Your task to perform on an android device: allow notifications from all sites in the chrome app Image 0: 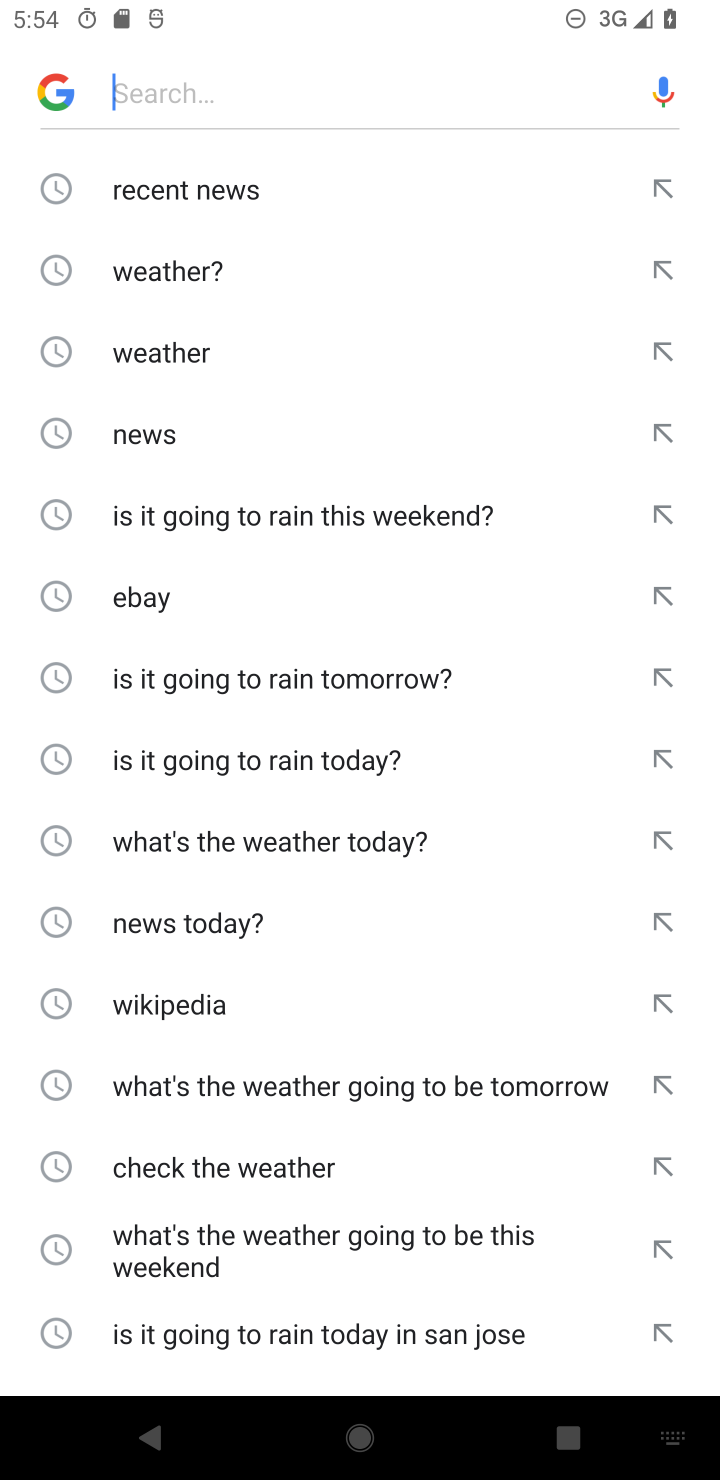
Step 0: press home button
Your task to perform on an android device: allow notifications from all sites in the chrome app Image 1: 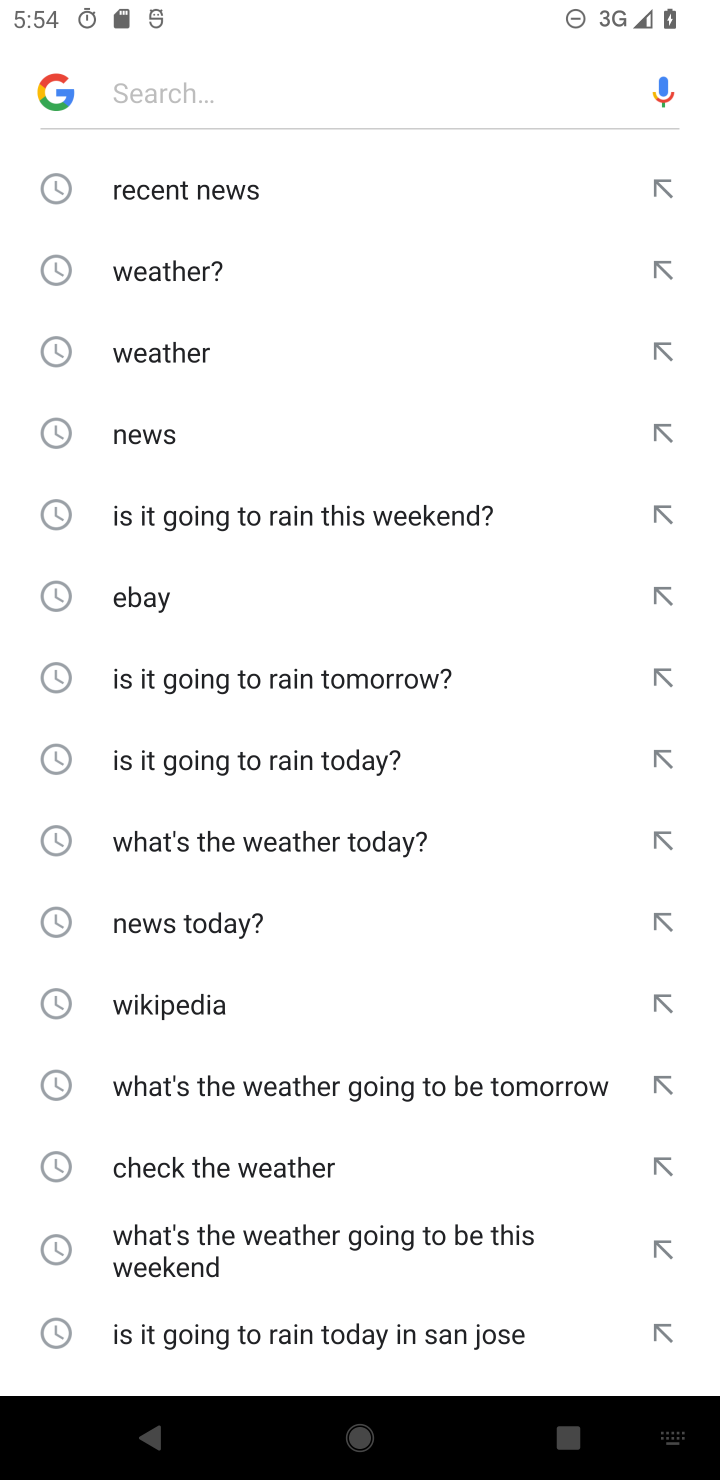
Step 1: press home button
Your task to perform on an android device: allow notifications from all sites in the chrome app Image 2: 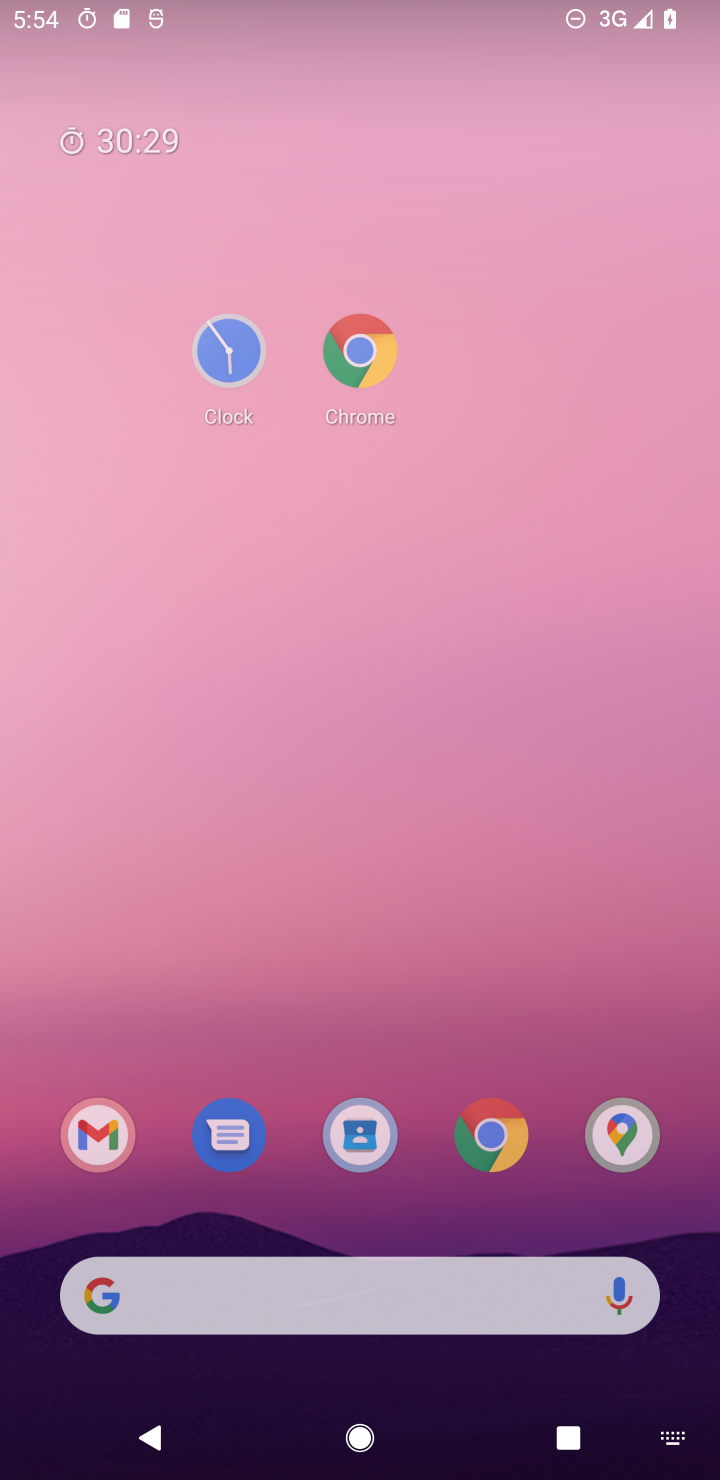
Step 2: press home button
Your task to perform on an android device: allow notifications from all sites in the chrome app Image 3: 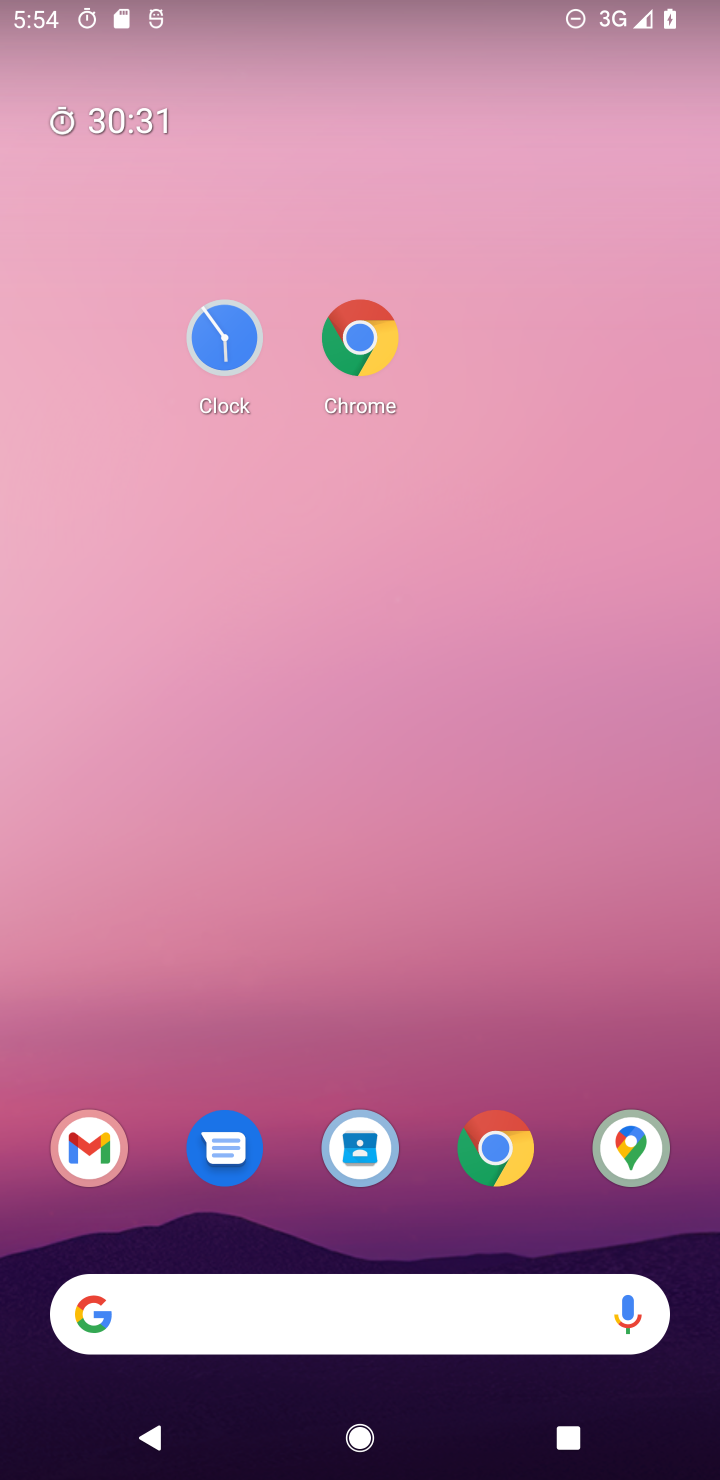
Step 3: press home button
Your task to perform on an android device: allow notifications from all sites in the chrome app Image 4: 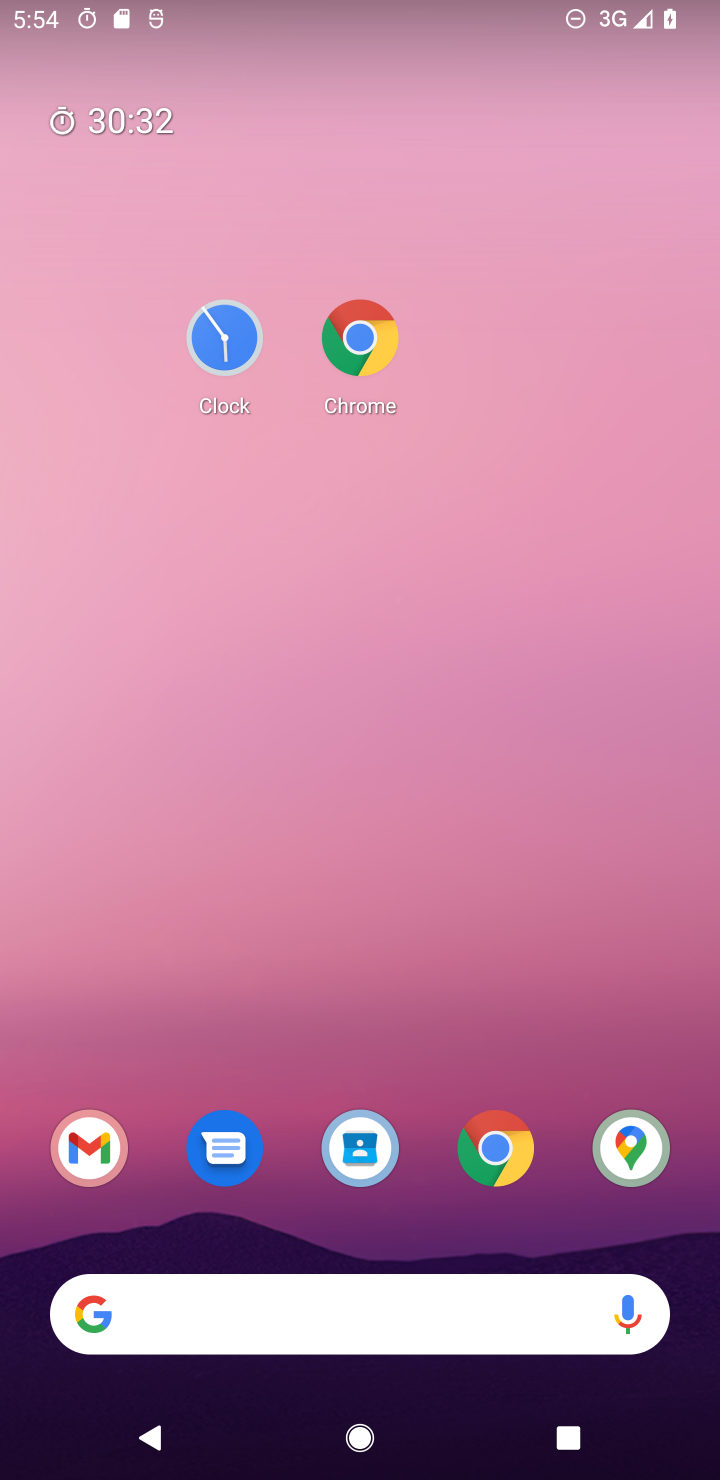
Step 4: drag from (431, 1083) to (443, 380)
Your task to perform on an android device: allow notifications from all sites in the chrome app Image 5: 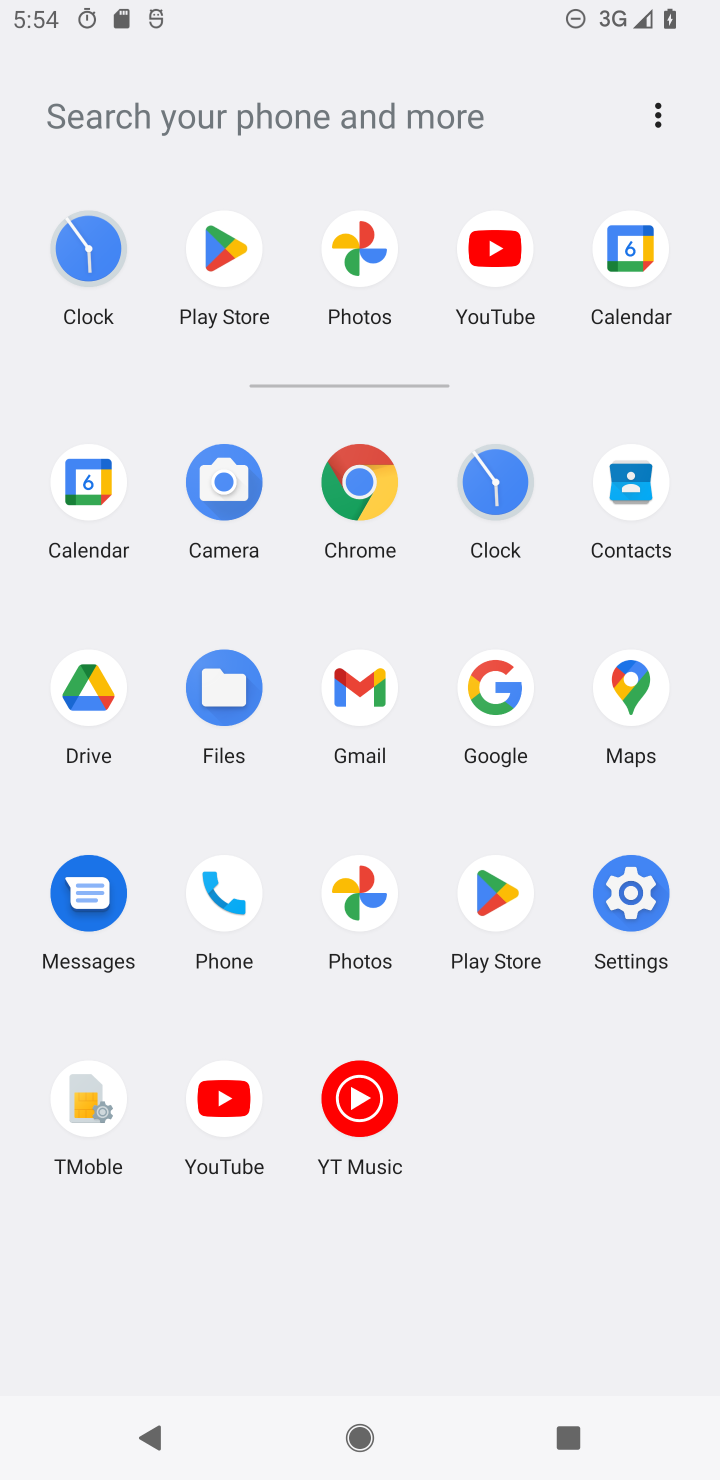
Step 5: click (339, 485)
Your task to perform on an android device: allow notifications from all sites in the chrome app Image 6: 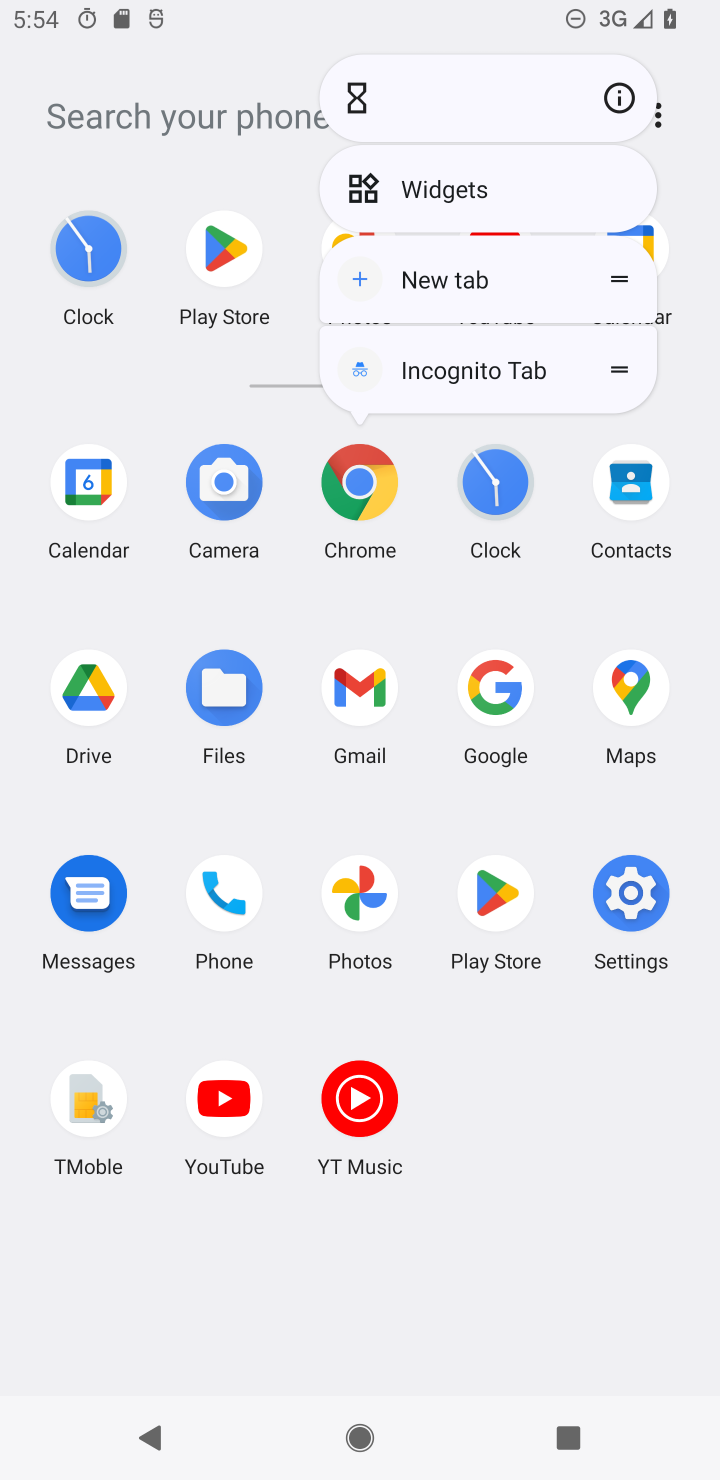
Step 6: click (634, 89)
Your task to perform on an android device: allow notifications from all sites in the chrome app Image 7: 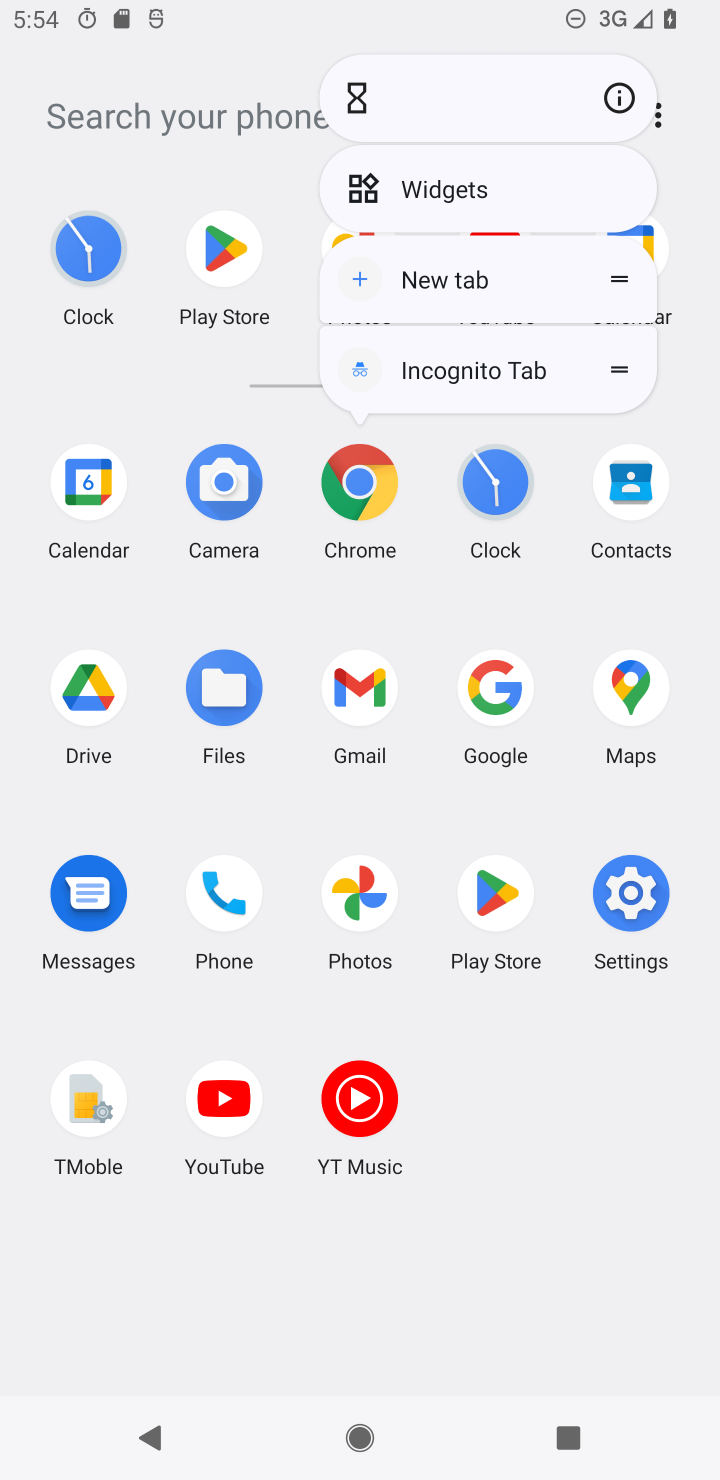
Step 7: click (342, 498)
Your task to perform on an android device: allow notifications from all sites in the chrome app Image 8: 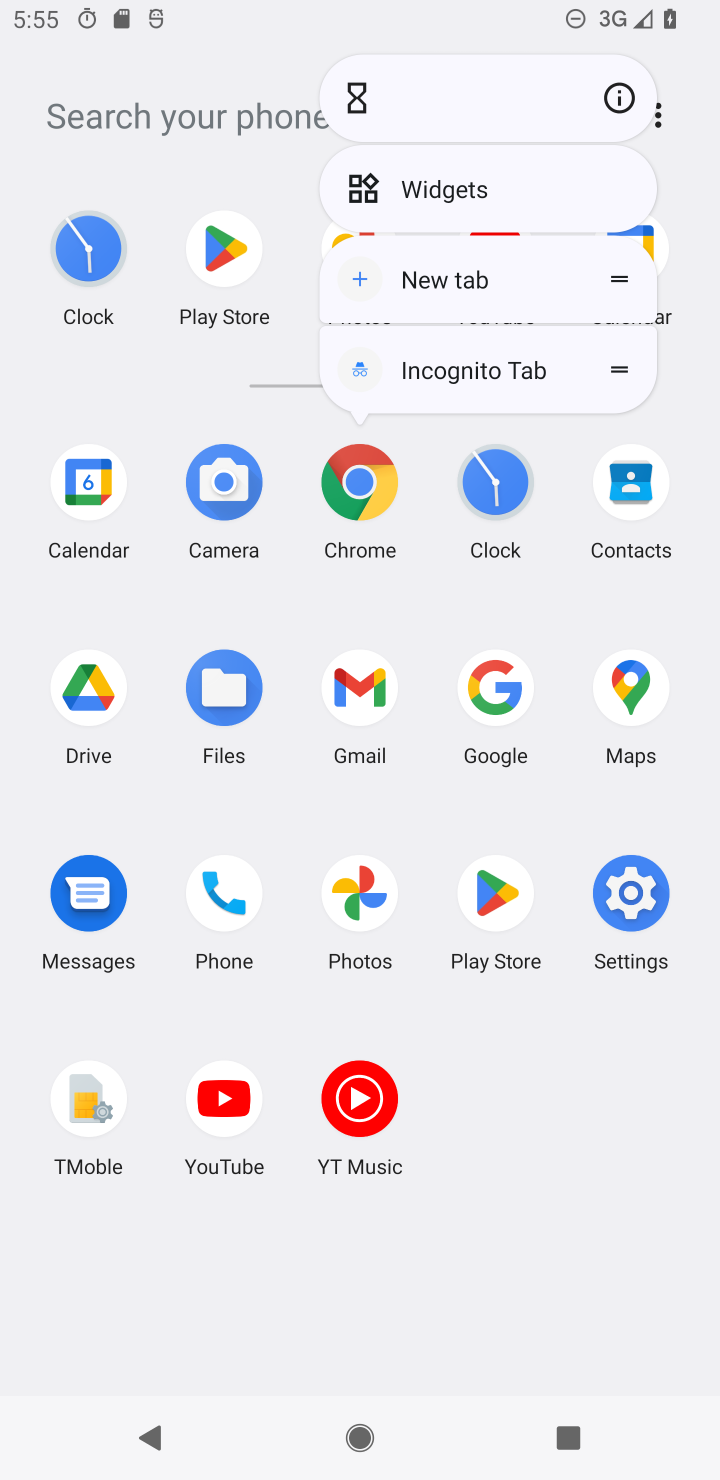
Step 8: click (603, 103)
Your task to perform on an android device: allow notifications from all sites in the chrome app Image 9: 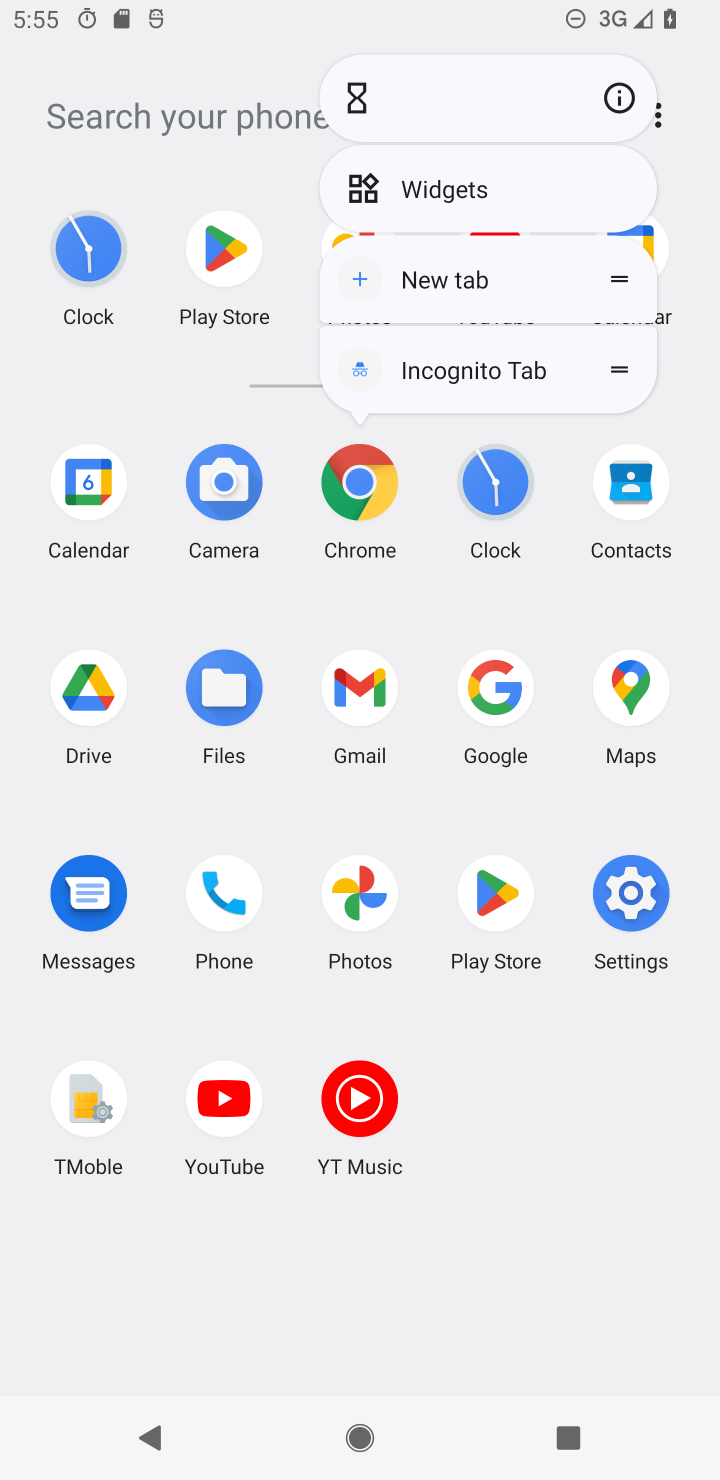
Step 9: click (359, 478)
Your task to perform on an android device: allow notifications from all sites in the chrome app Image 10: 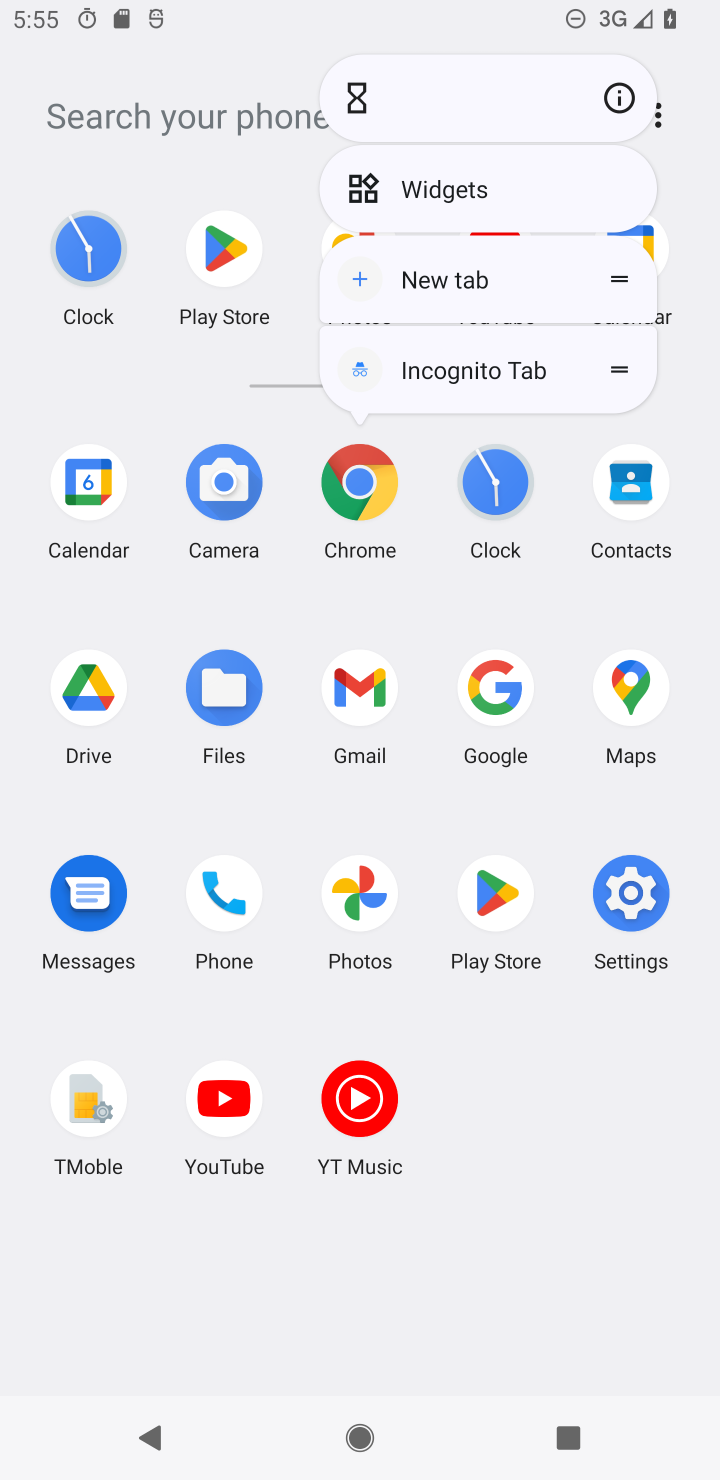
Step 10: click (346, 493)
Your task to perform on an android device: allow notifications from all sites in the chrome app Image 11: 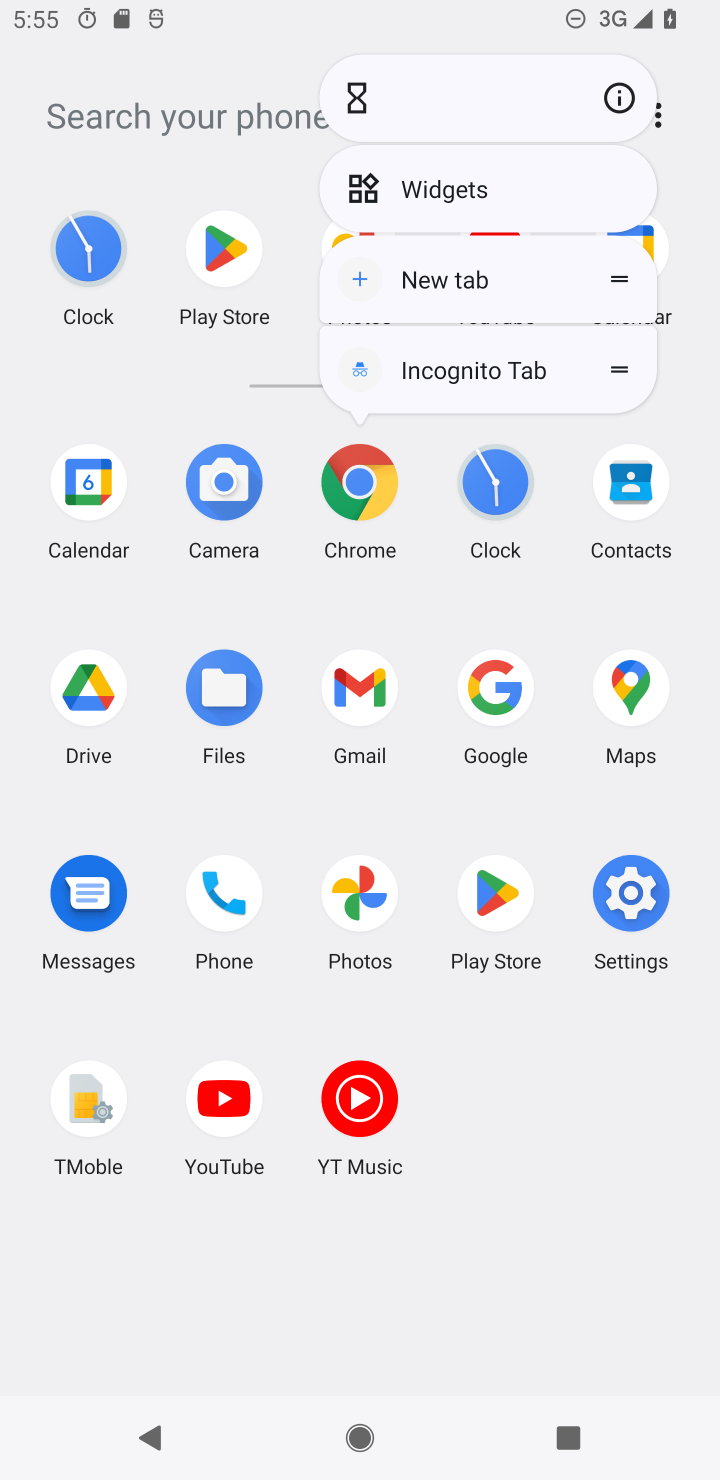
Step 11: click (611, 110)
Your task to perform on an android device: allow notifications from all sites in the chrome app Image 12: 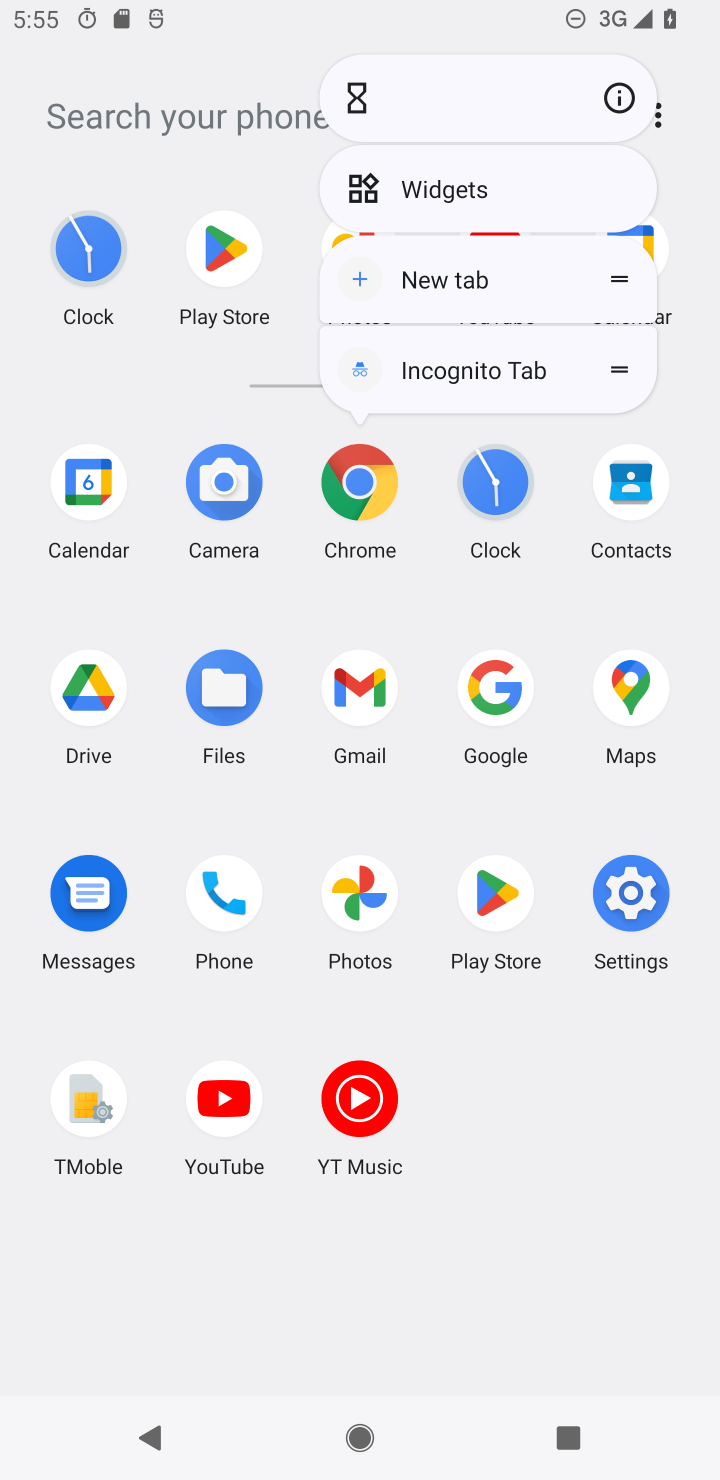
Step 12: click (592, 79)
Your task to perform on an android device: allow notifications from all sites in the chrome app Image 13: 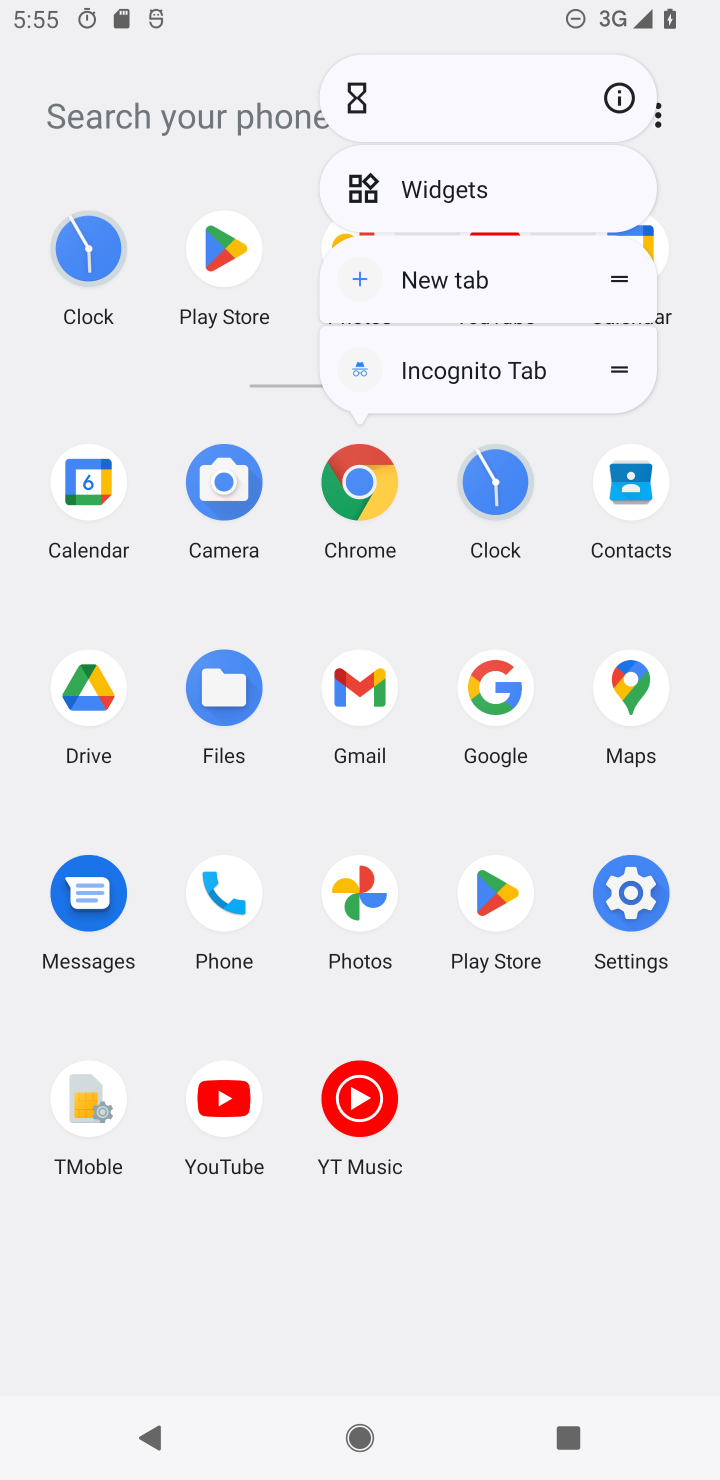
Step 13: click (624, 106)
Your task to perform on an android device: allow notifications from all sites in the chrome app Image 14: 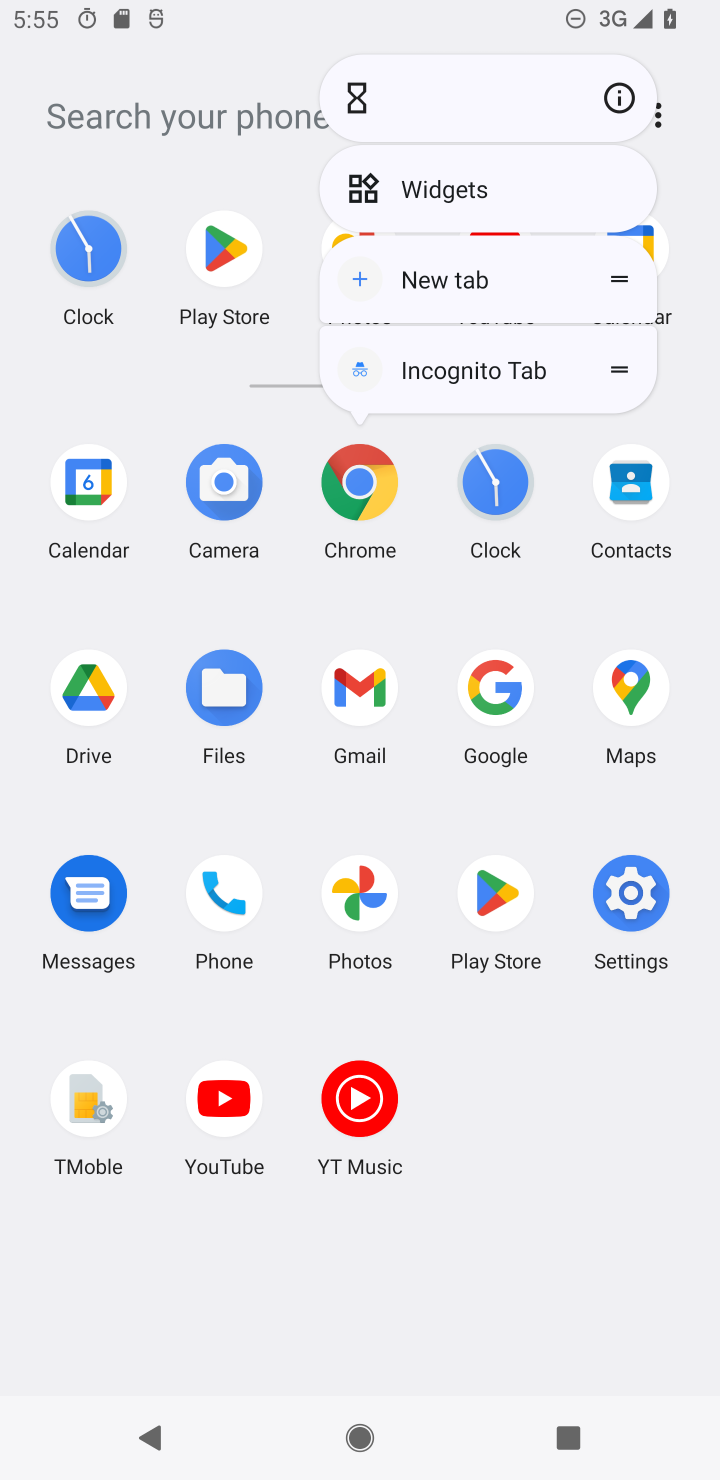
Step 14: click (601, 108)
Your task to perform on an android device: allow notifications from all sites in the chrome app Image 15: 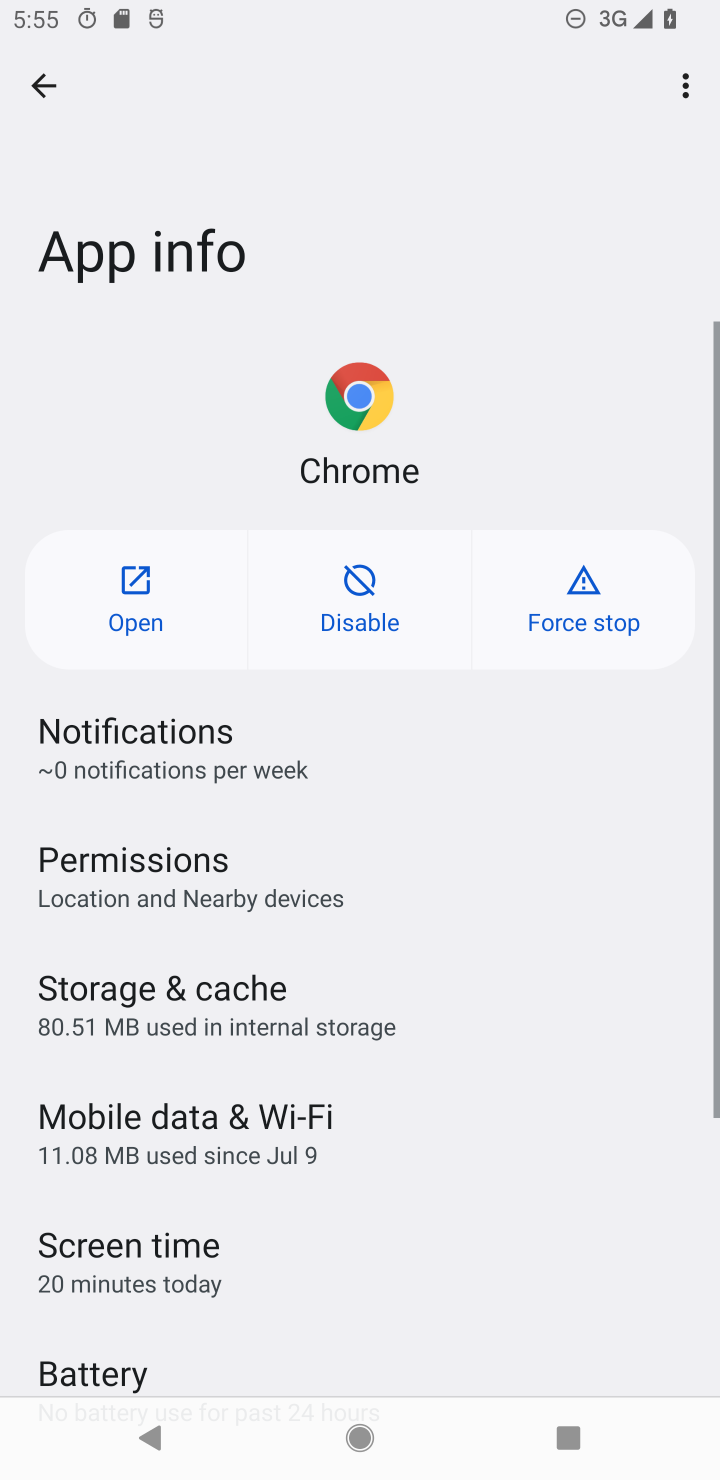
Step 15: click (123, 588)
Your task to perform on an android device: allow notifications from all sites in the chrome app Image 16: 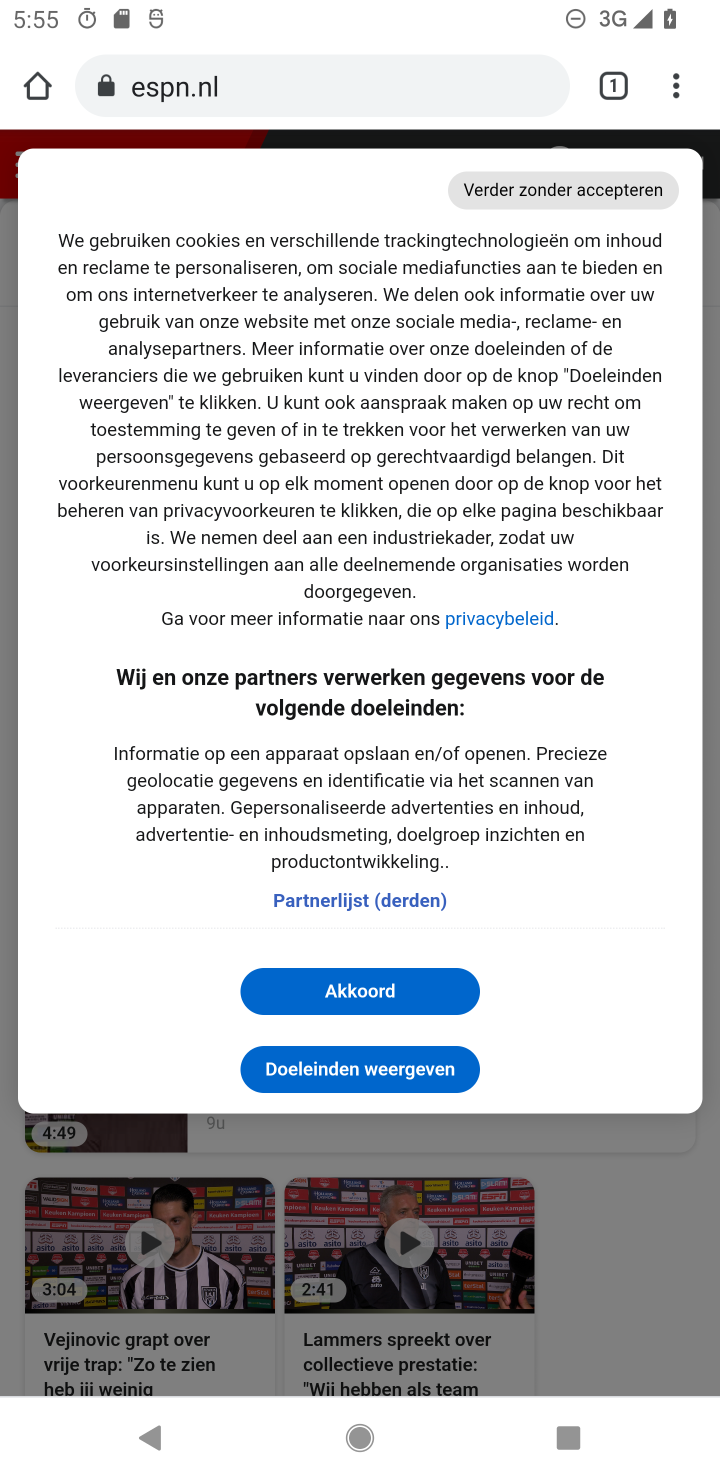
Step 16: drag from (690, 87) to (473, 1146)
Your task to perform on an android device: allow notifications from all sites in the chrome app Image 17: 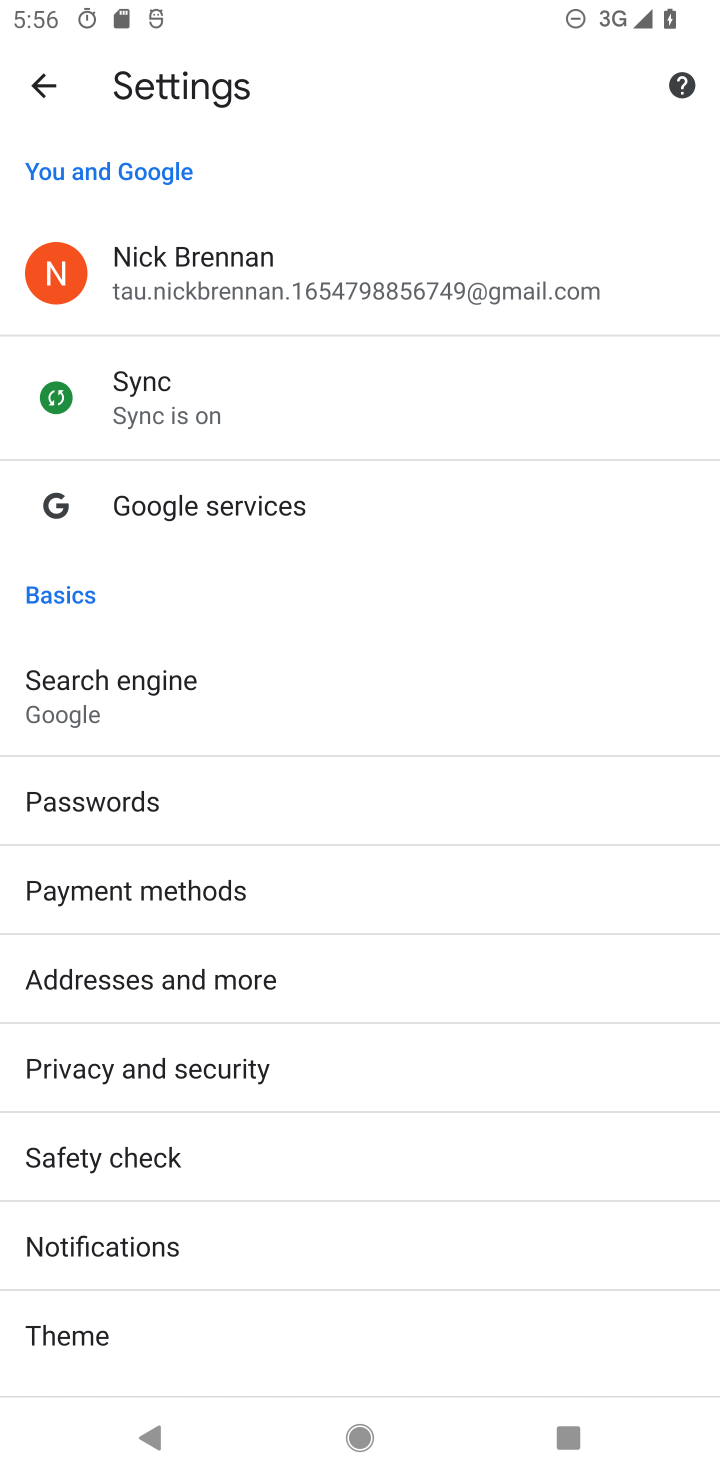
Step 17: drag from (245, 1124) to (281, 589)
Your task to perform on an android device: allow notifications from all sites in the chrome app Image 18: 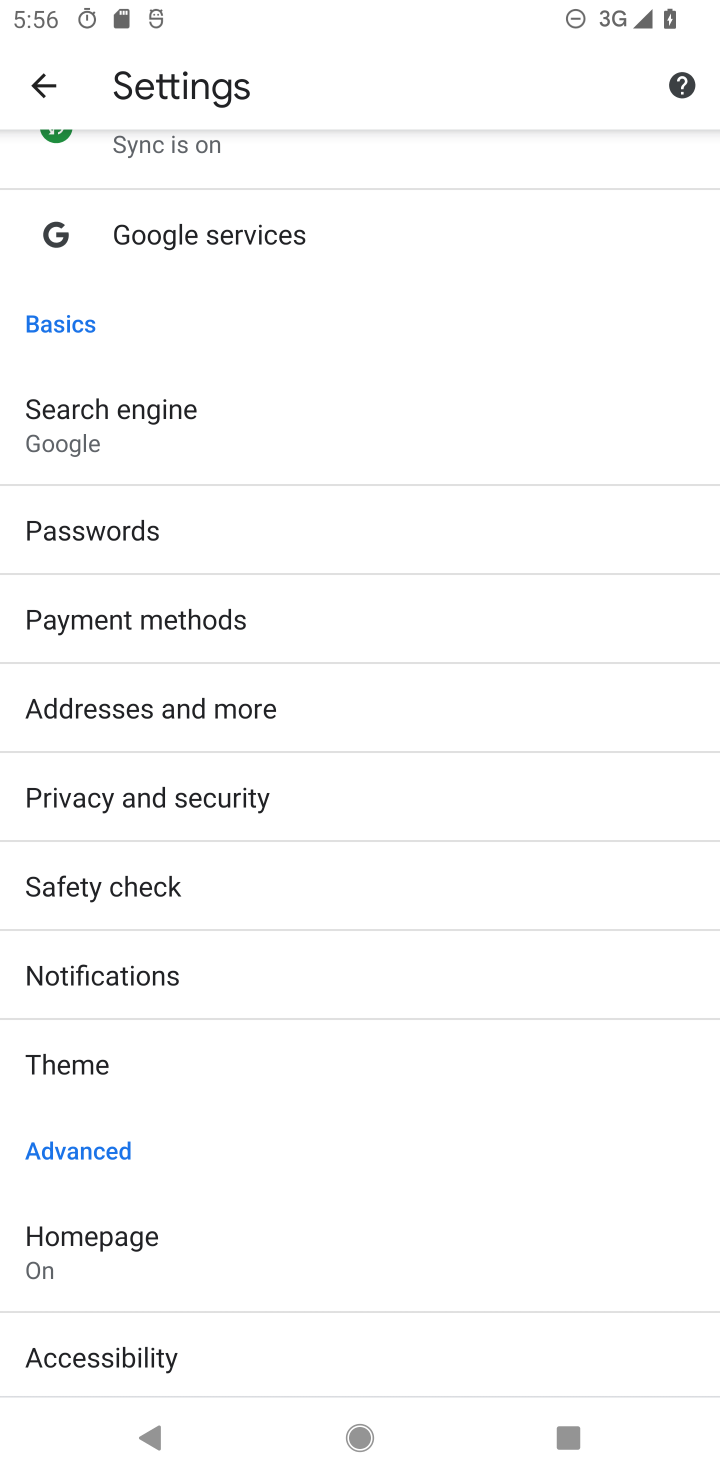
Step 18: drag from (218, 1254) to (348, 716)
Your task to perform on an android device: allow notifications from all sites in the chrome app Image 19: 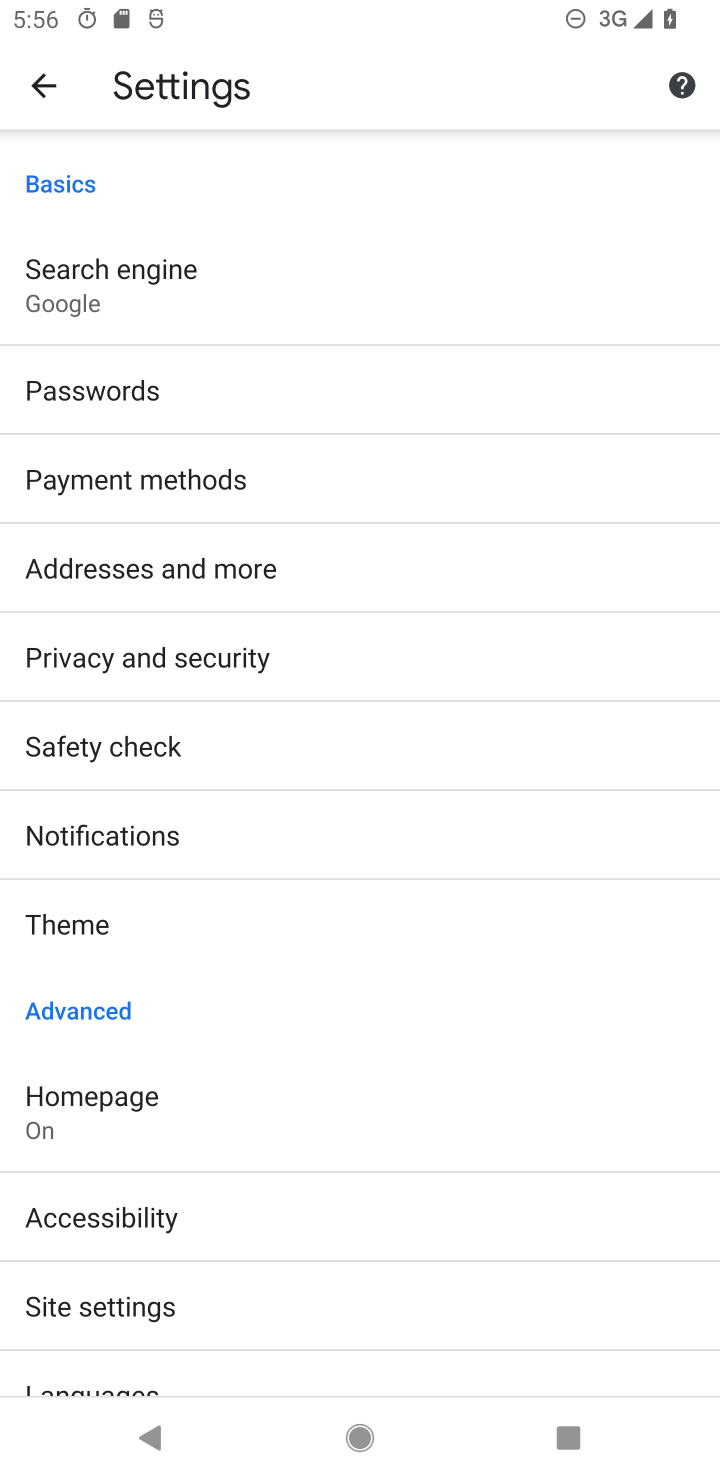
Step 19: click (142, 1283)
Your task to perform on an android device: allow notifications from all sites in the chrome app Image 20: 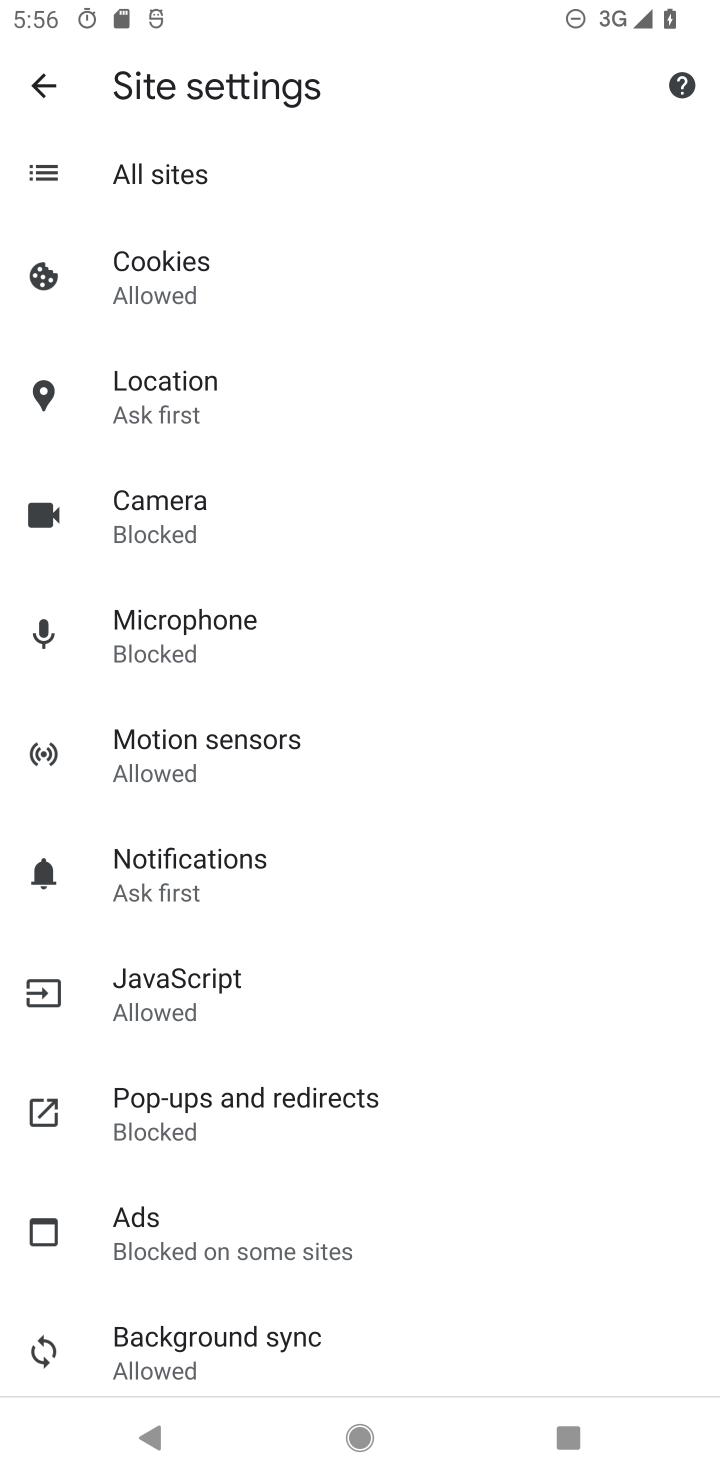
Step 20: click (219, 875)
Your task to perform on an android device: allow notifications from all sites in the chrome app Image 21: 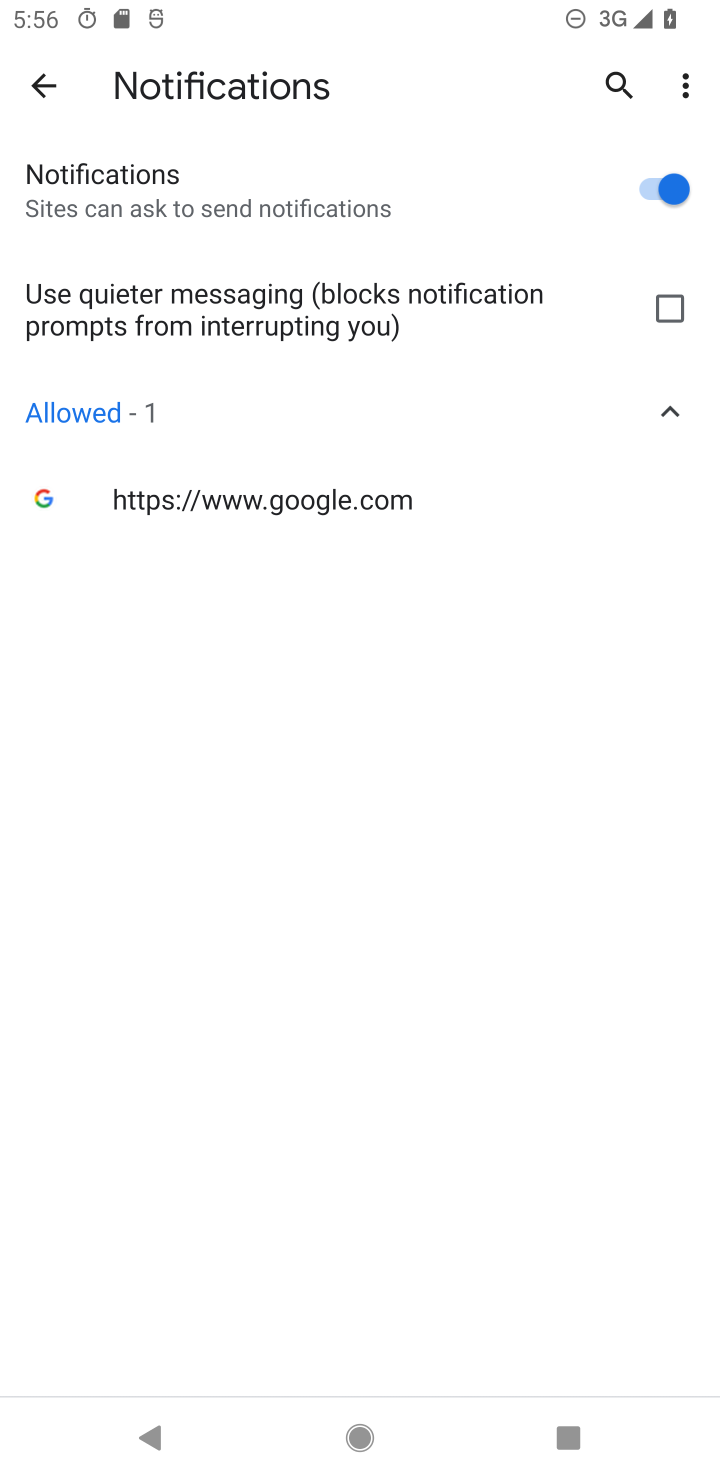
Step 21: task complete